Your task to perform on an android device: Open Youtube and go to the subscriptions tab Image 0: 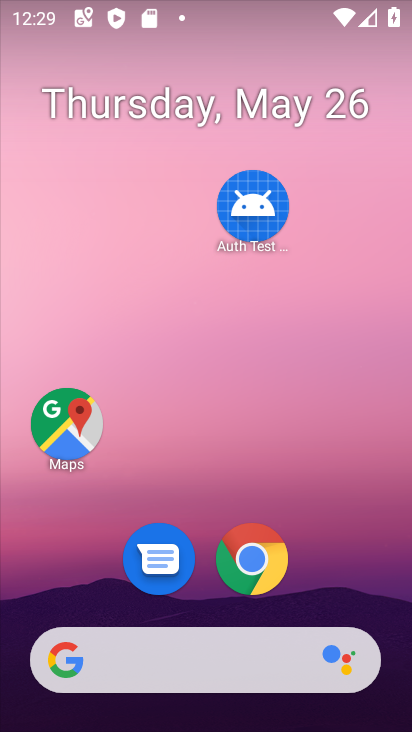
Step 0: drag from (364, 586) to (335, 141)
Your task to perform on an android device: Open Youtube and go to the subscriptions tab Image 1: 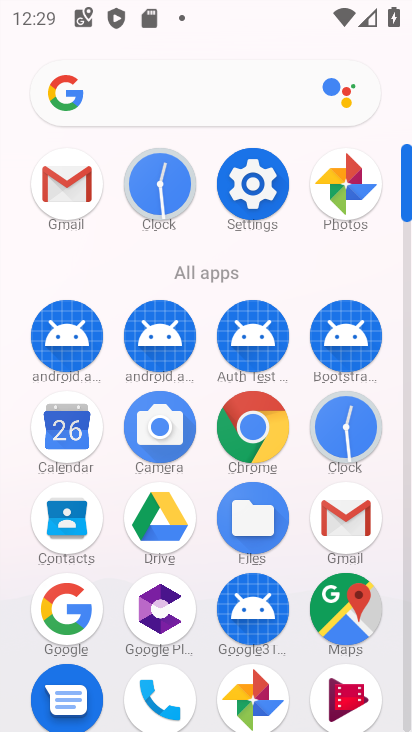
Step 1: drag from (302, 282) to (337, 68)
Your task to perform on an android device: Open Youtube and go to the subscriptions tab Image 2: 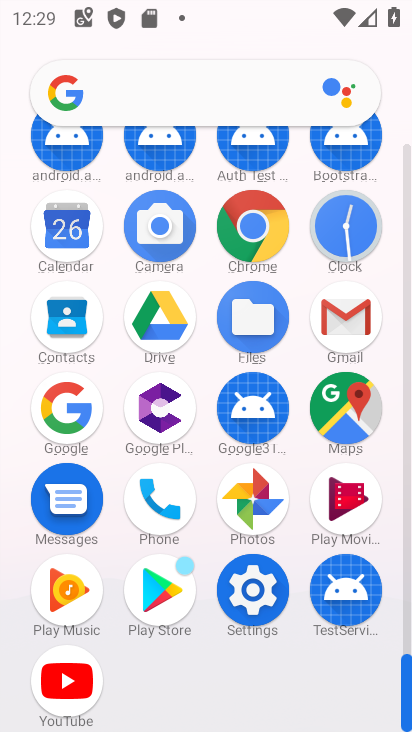
Step 2: click (83, 690)
Your task to perform on an android device: Open Youtube and go to the subscriptions tab Image 3: 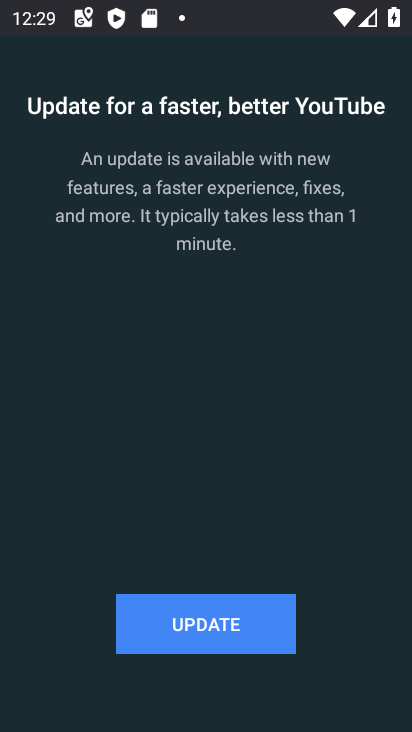
Step 3: click (273, 608)
Your task to perform on an android device: Open Youtube and go to the subscriptions tab Image 4: 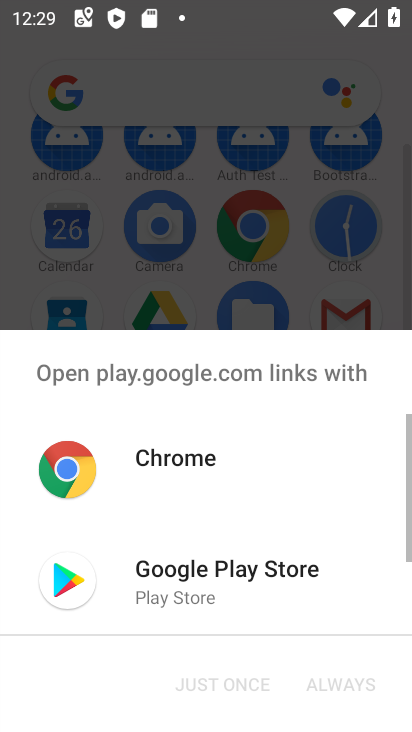
Step 4: click (199, 564)
Your task to perform on an android device: Open Youtube and go to the subscriptions tab Image 5: 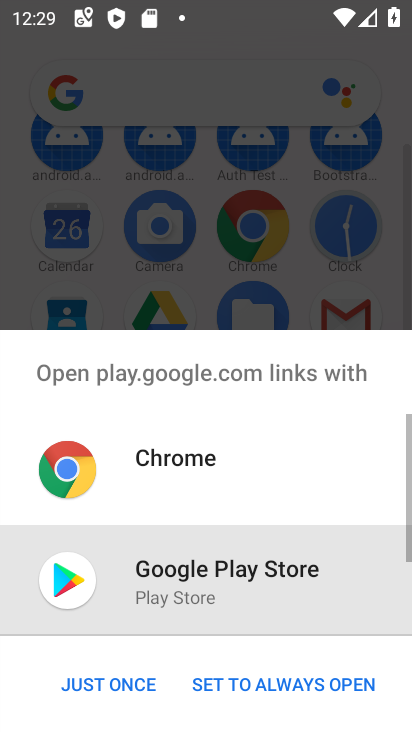
Step 5: drag from (204, 678) to (155, 663)
Your task to perform on an android device: Open Youtube and go to the subscriptions tab Image 6: 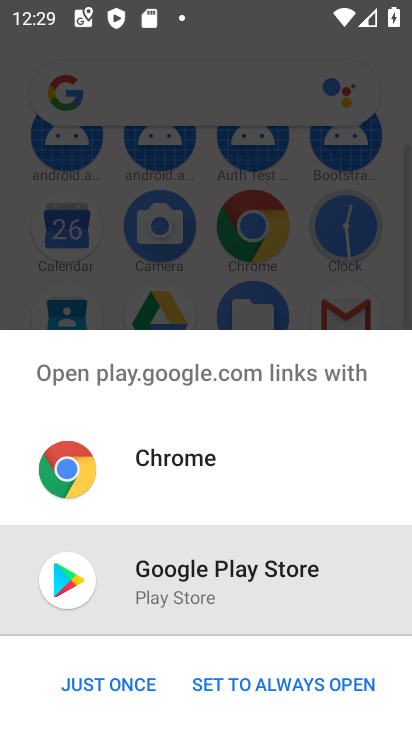
Step 6: click (150, 684)
Your task to perform on an android device: Open Youtube and go to the subscriptions tab Image 7: 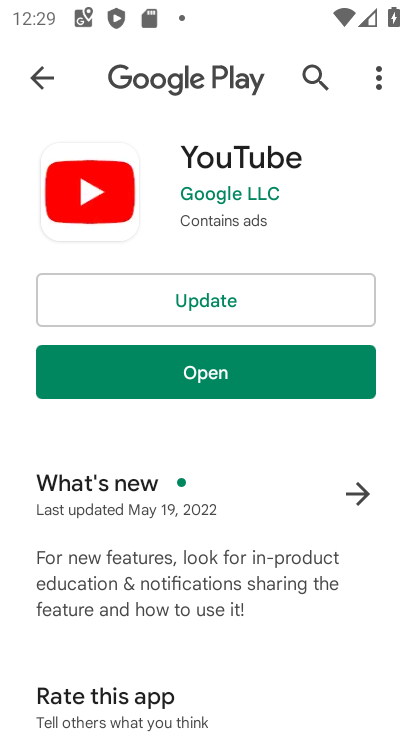
Step 7: click (220, 296)
Your task to perform on an android device: Open Youtube and go to the subscriptions tab Image 8: 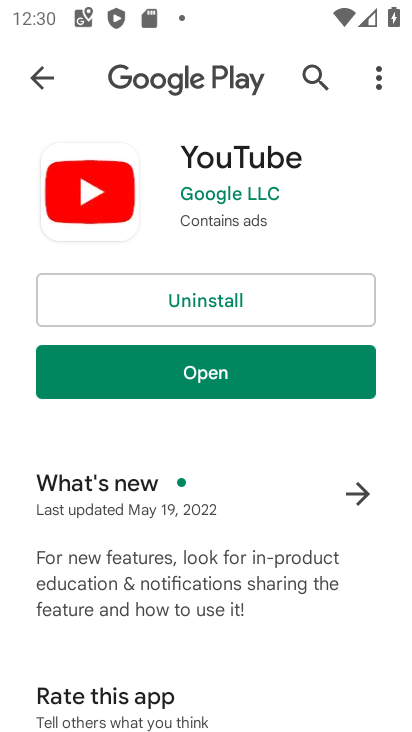
Step 8: click (273, 387)
Your task to perform on an android device: Open Youtube and go to the subscriptions tab Image 9: 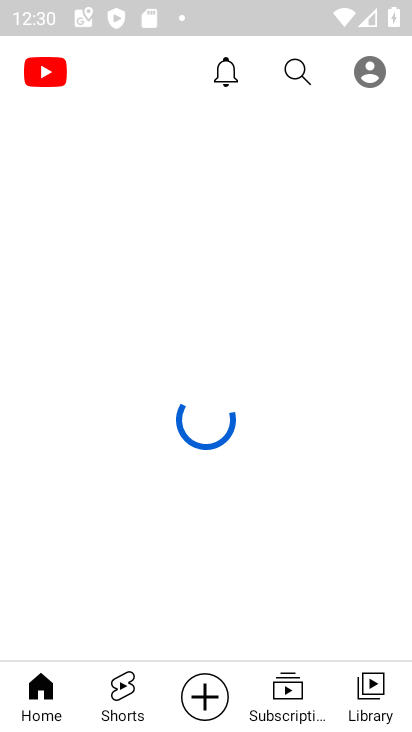
Step 9: click (265, 696)
Your task to perform on an android device: Open Youtube and go to the subscriptions tab Image 10: 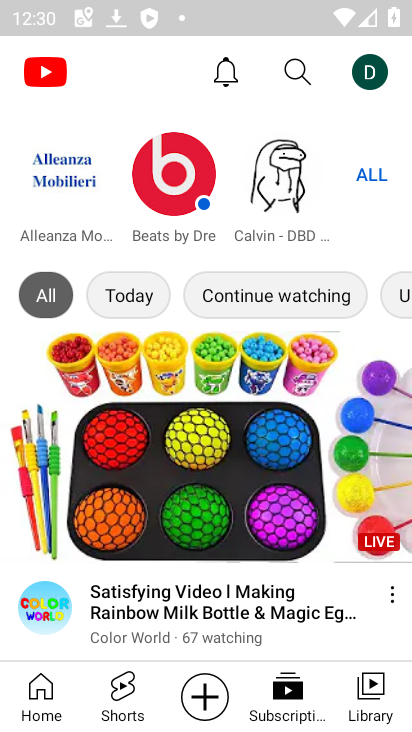
Step 10: task complete